Your task to perform on an android device: Do I have any events this weekend? Image 0: 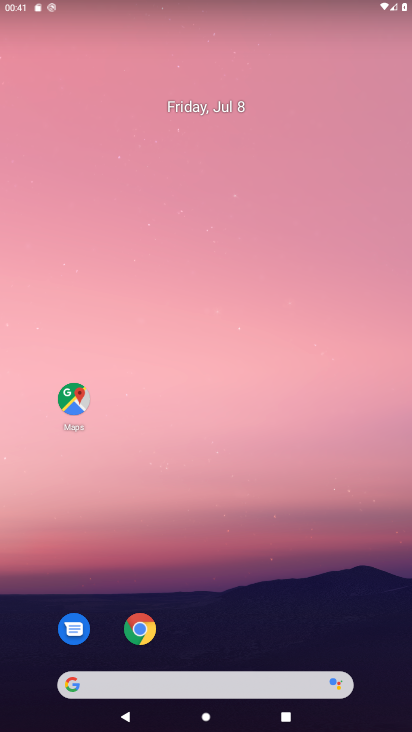
Step 0: drag from (243, 586) to (350, 15)
Your task to perform on an android device: Do I have any events this weekend? Image 1: 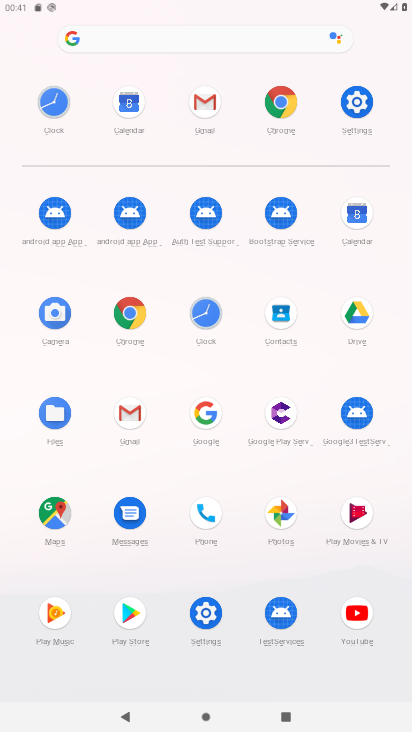
Step 1: click (357, 212)
Your task to perform on an android device: Do I have any events this weekend? Image 2: 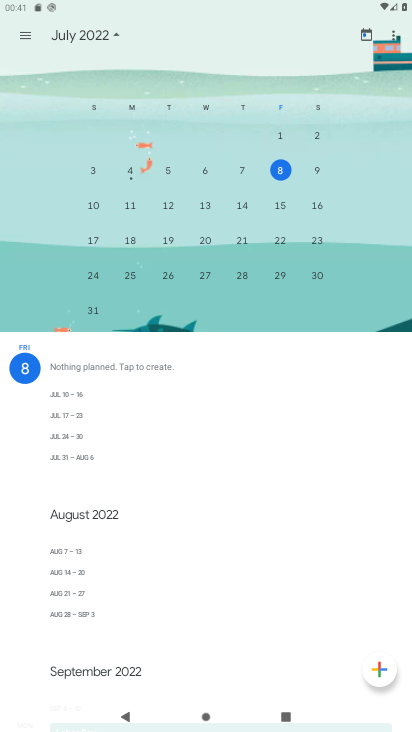
Step 2: click (313, 169)
Your task to perform on an android device: Do I have any events this weekend? Image 3: 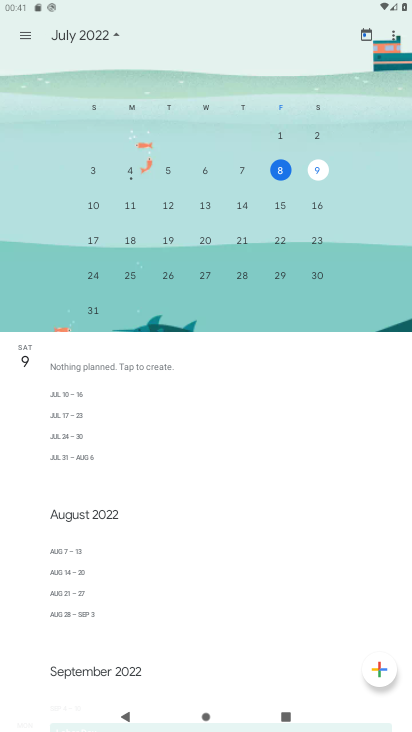
Step 3: click (87, 203)
Your task to perform on an android device: Do I have any events this weekend? Image 4: 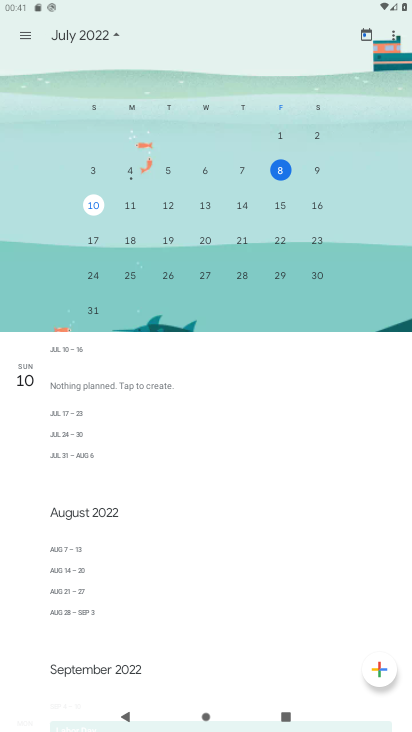
Step 4: task complete